Your task to perform on an android device: change keyboard looks Image 0: 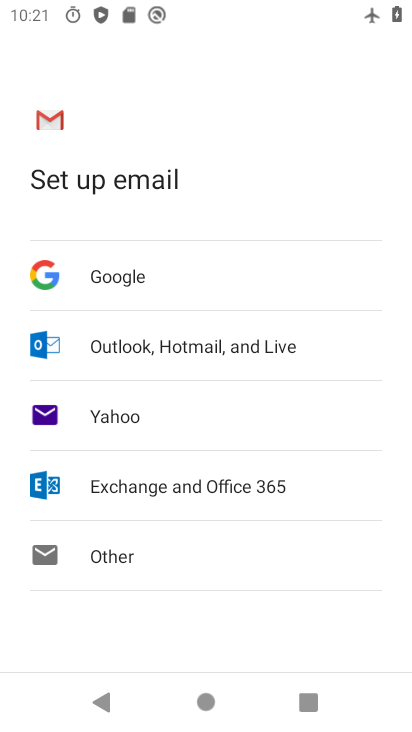
Step 0: press home button
Your task to perform on an android device: change keyboard looks Image 1: 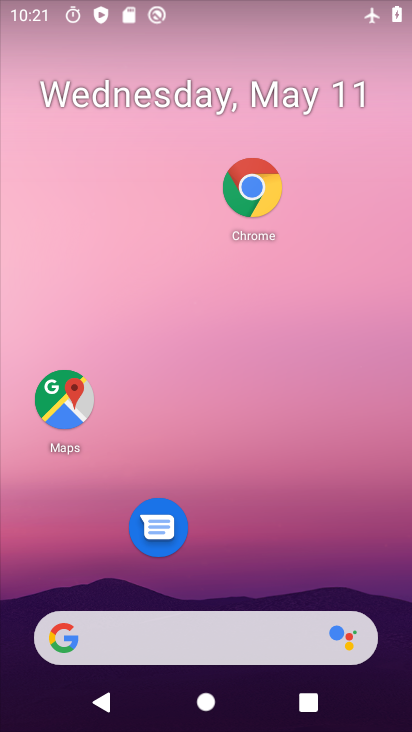
Step 1: drag from (196, 528) to (185, 244)
Your task to perform on an android device: change keyboard looks Image 2: 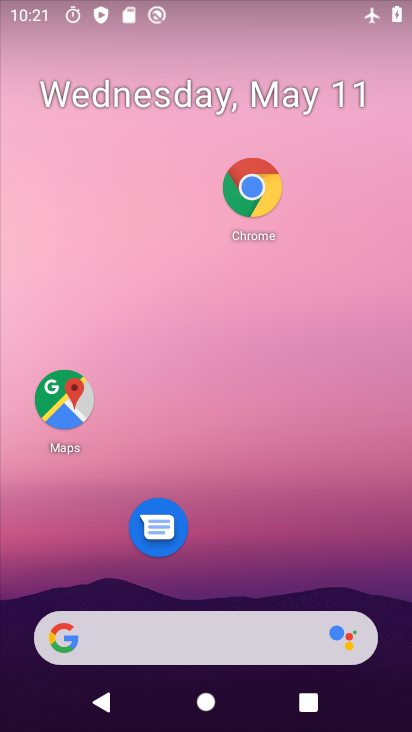
Step 2: drag from (208, 603) to (178, 115)
Your task to perform on an android device: change keyboard looks Image 3: 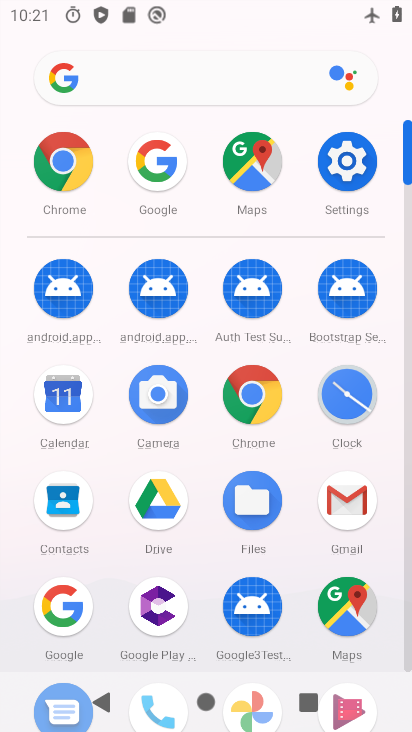
Step 3: click (342, 183)
Your task to perform on an android device: change keyboard looks Image 4: 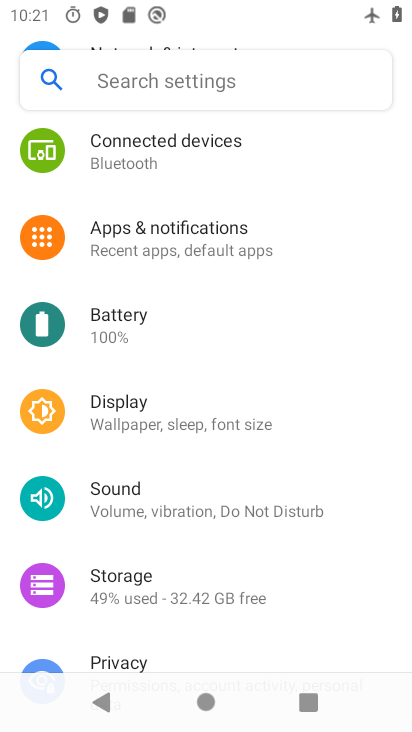
Step 4: drag from (205, 485) to (176, 17)
Your task to perform on an android device: change keyboard looks Image 5: 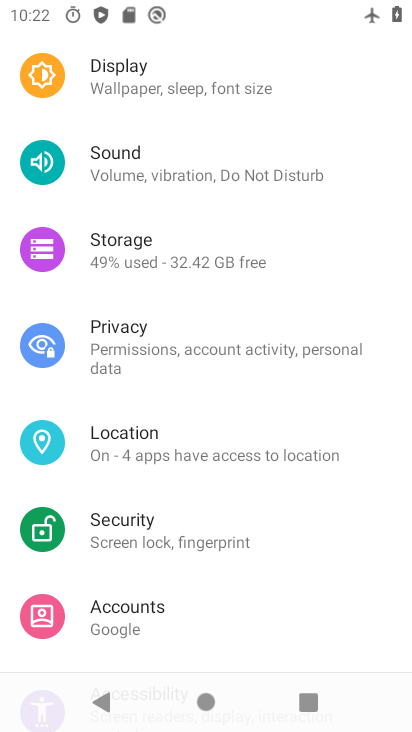
Step 5: drag from (164, 397) to (165, 69)
Your task to perform on an android device: change keyboard looks Image 6: 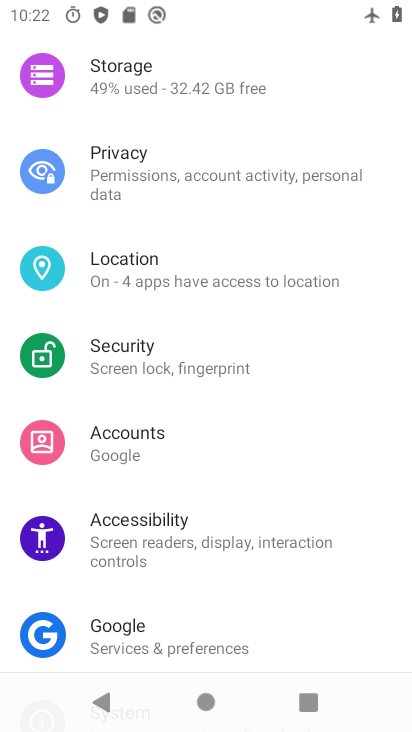
Step 6: drag from (178, 390) to (222, 18)
Your task to perform on an android device: change keyboard looks Image 7: 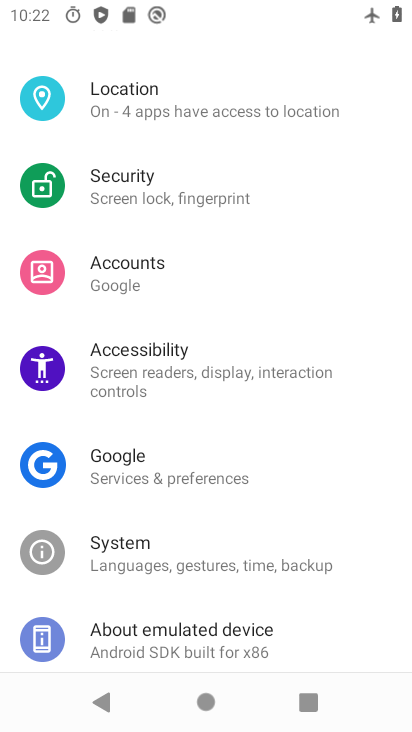
Step 7: drag from (164, 236) to (242, 1)
Your task to perform on an android device: change keyboard looks Image 8: 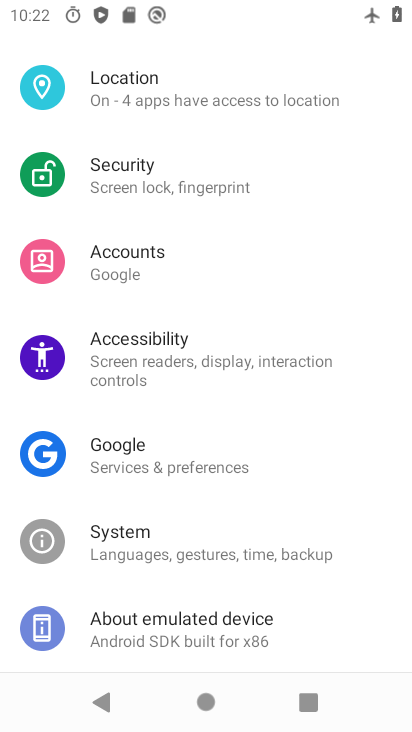
Step 8: click (182, 525)
Your task to perform on an android device: change keyboard looks Image 9: 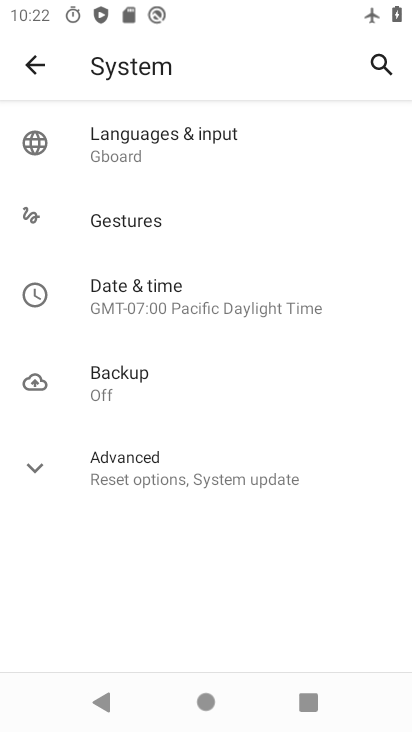
Step 9: click (205, 154)
Your task to perform on an android device: change keyboard looks Image 10: 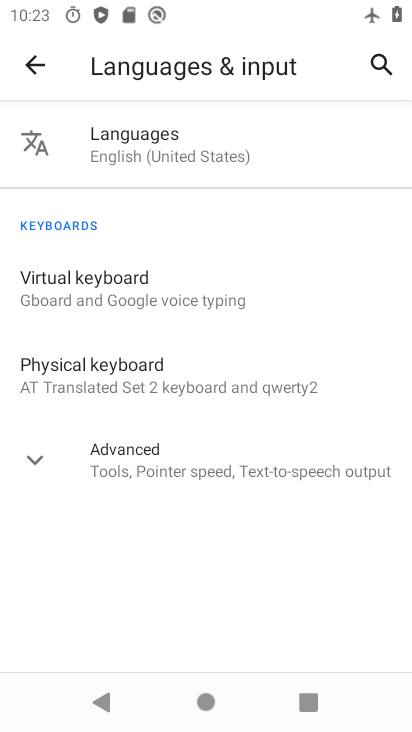
Step 10: click (163, 312)
Your task to perform on an android device: change keyboard looks Image 11: 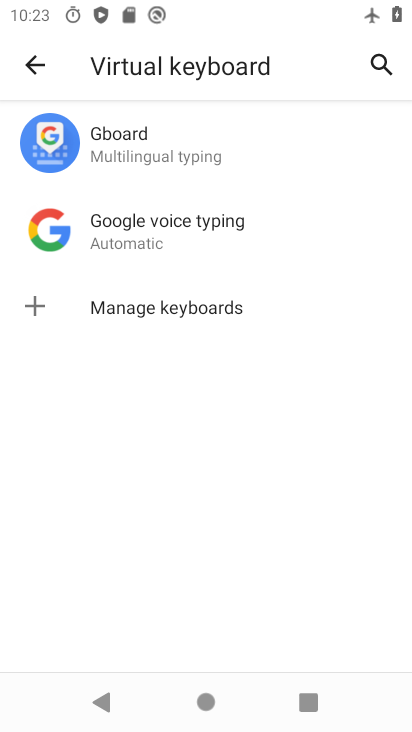
Step 11: click (201, 148)
Your task to perform on an android device: change keyboard looks Image 12: 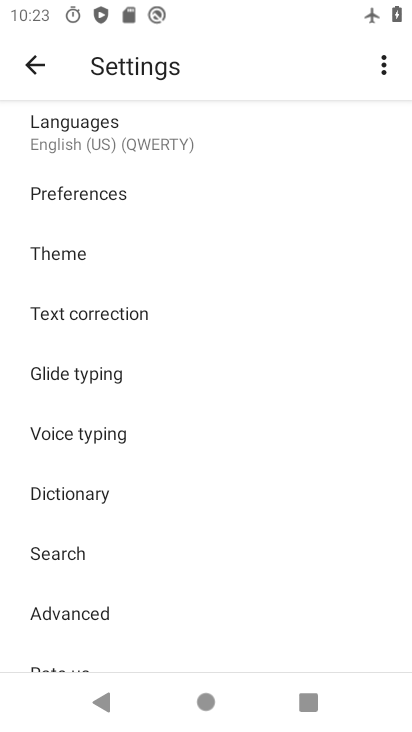
Step 12: click (88, 249)
Your task to perform on an android device: change keyboard looks Image 13: 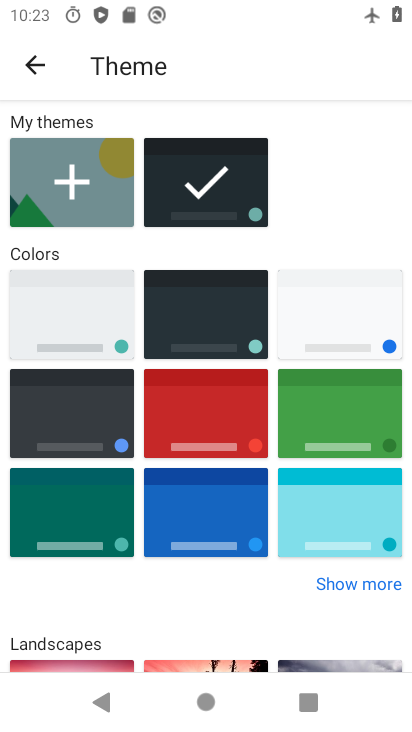
Step 13: click (234, 299)
Your task to perform on an android device: change keyboard looks Image 14: 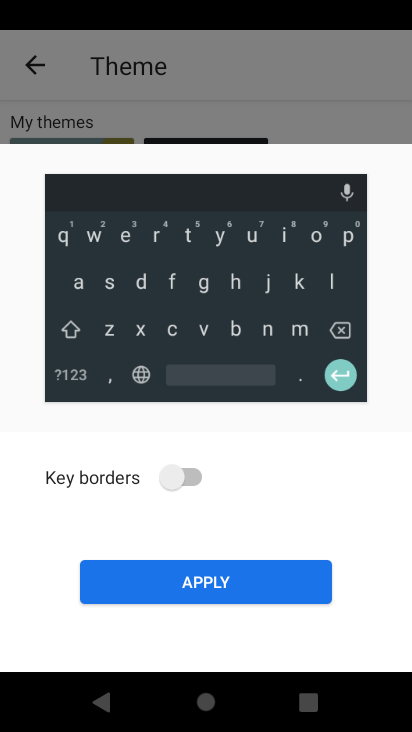
Step 14: click (234, 299)
Your task to perform on an android device: change keyboard looks Image 15: 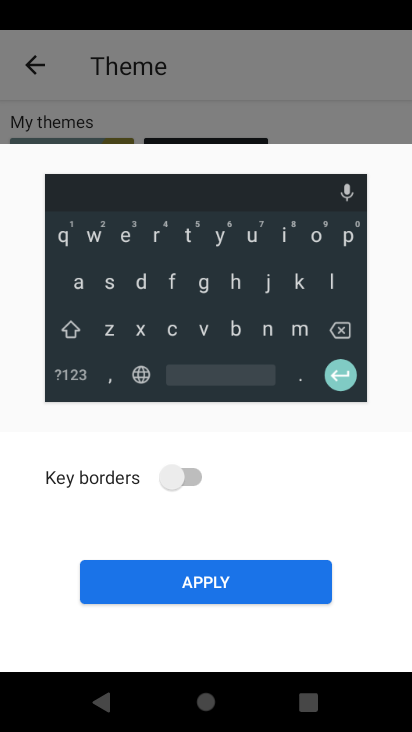
Step 15: click (225, 592)
Your task to perform on an android device: change keyboard looks Image 16: 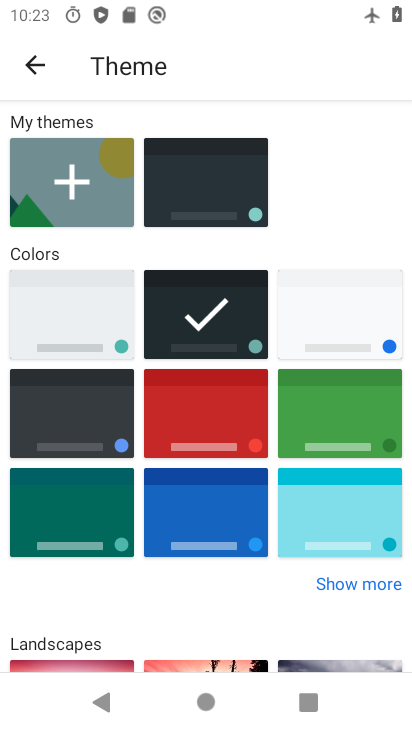
Step 16: task complete